Your task to perform on an android device: Open sound settings Image 0: 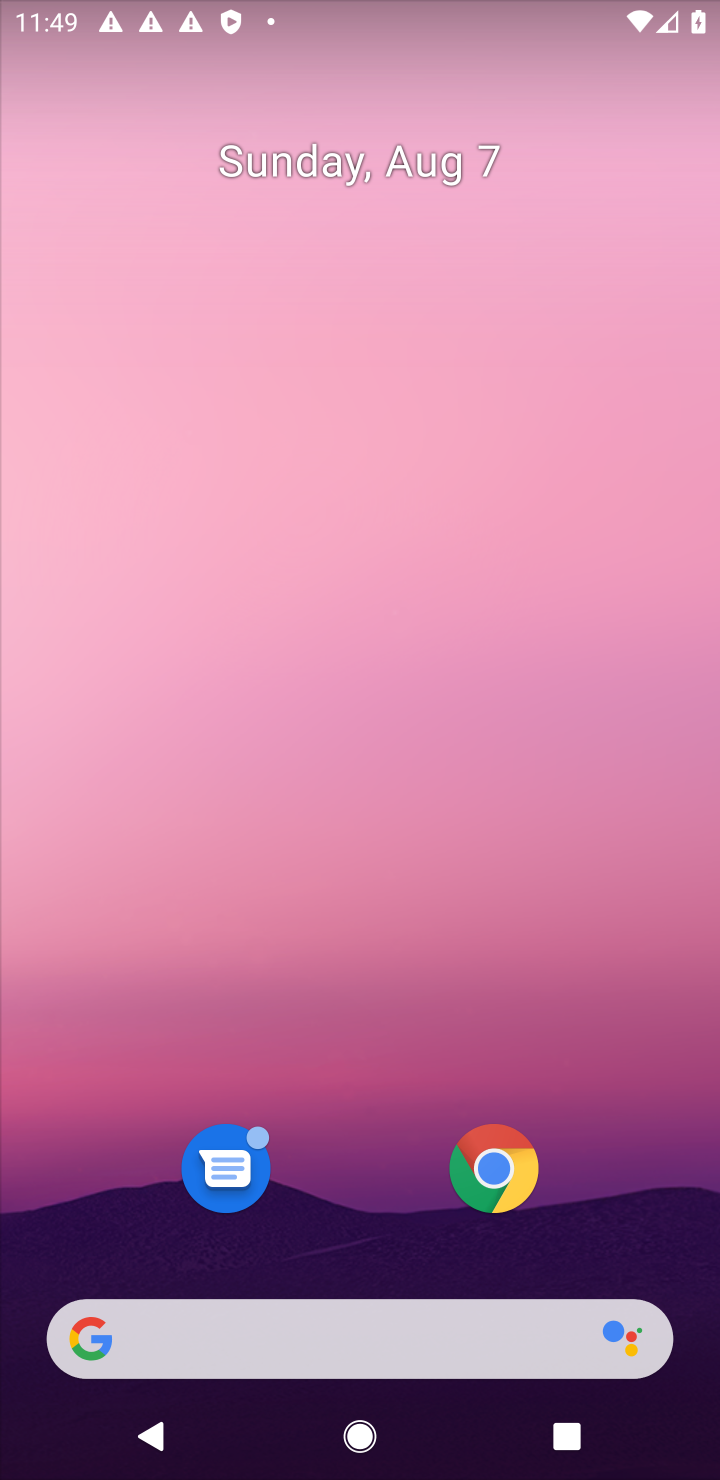
Step 0: drag from (401, 1280) to (404, 247)
Your task to perform on an android device: Open sound settings Image 1: 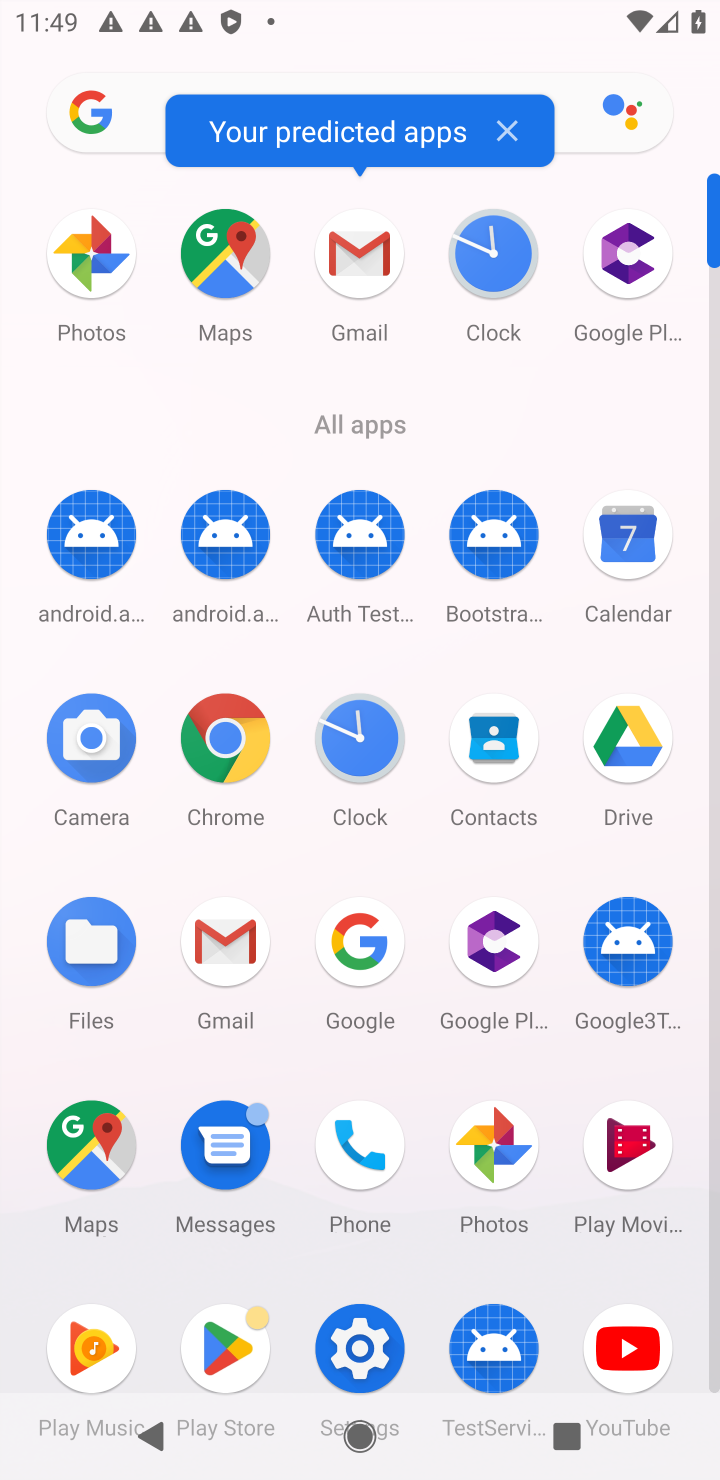
Step 1: click (375, 1344)
Your task to perform on an android device: Open sound settings Image 2: 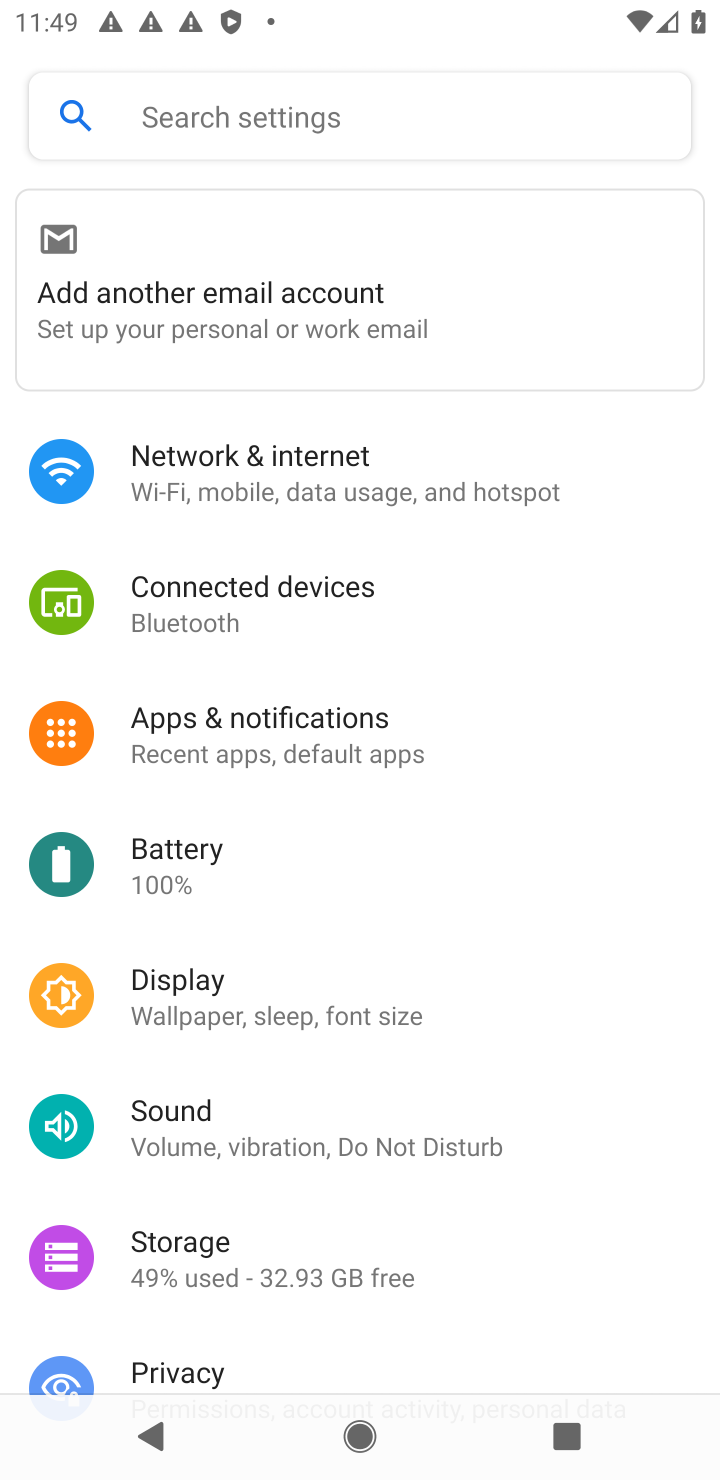
Step 2: click (345, 1110)
Your task to perform on an android device: Open sound settings Image 3: 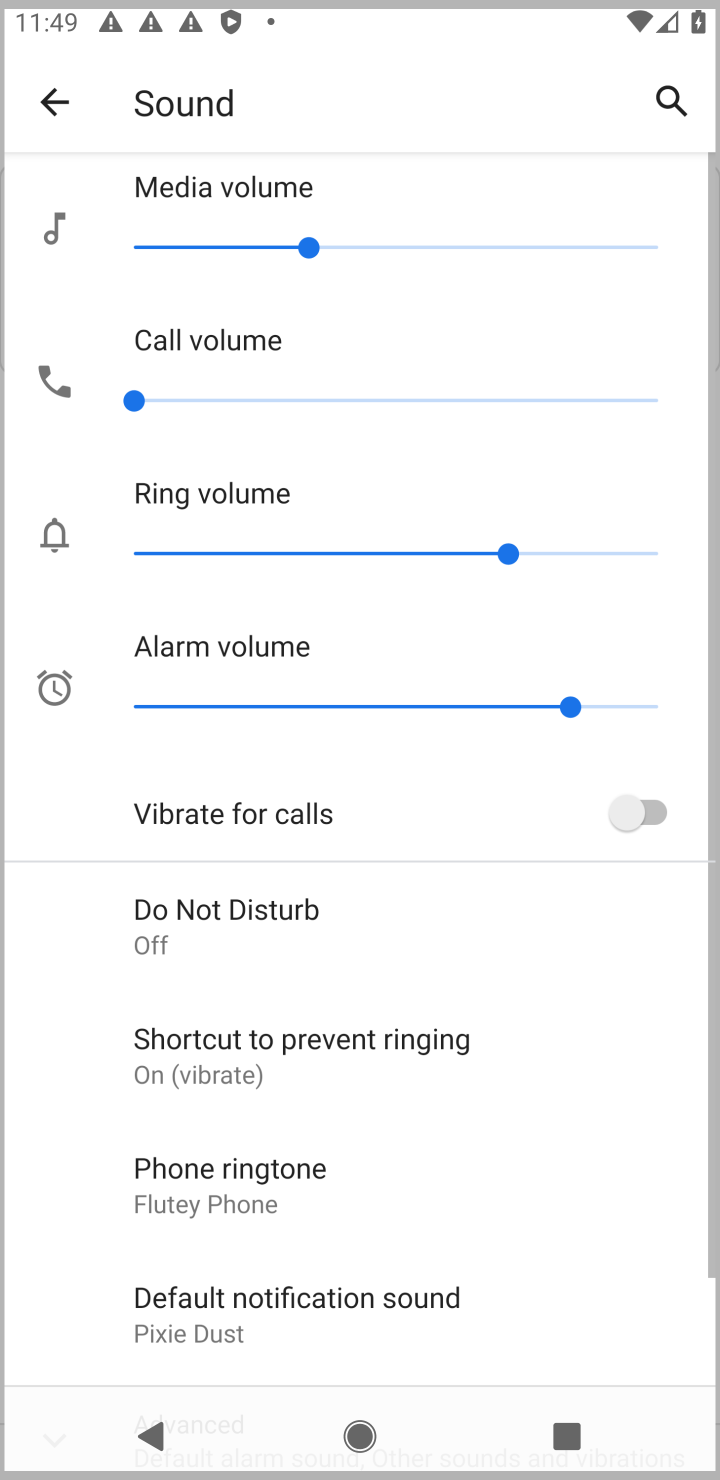
Step 3: task complete